Your task to perform on an android device: Open Google Maps Image 0: 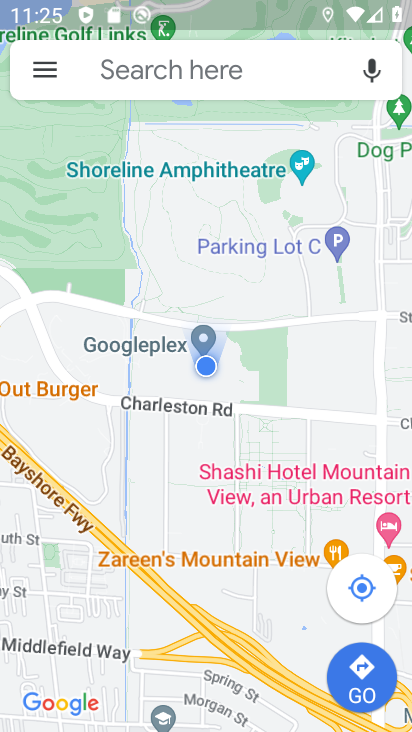
Step 0: task complete